Your task to perform on an android device: turn off picture-in-picture Image 0: 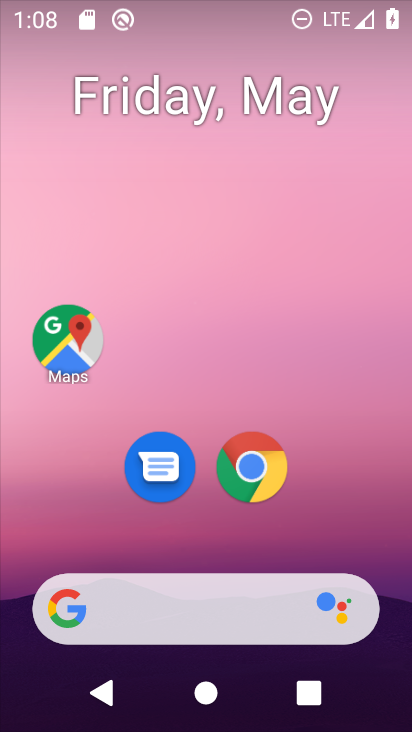
Step 0: drag from (199, 589) to (190, 16)
Your task to perform on an android device: turn off picture-in-picture Image 1: 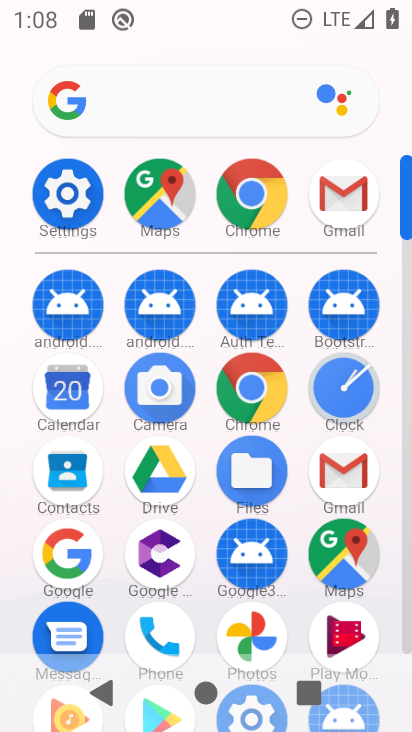
Step 1: drag from (294, 584) to (282, 264)
Your task to perform on an android device: turn off picture-in-picture Image 2: 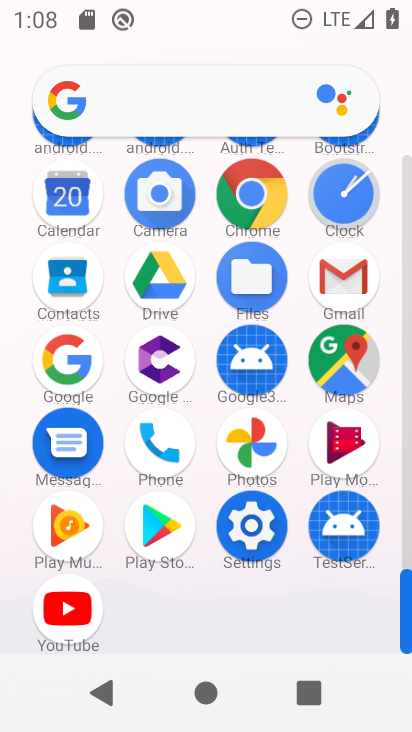
Step 2: click (265, 536)
Your task to perform on an android device: turn off picture-in-picture Image 3: 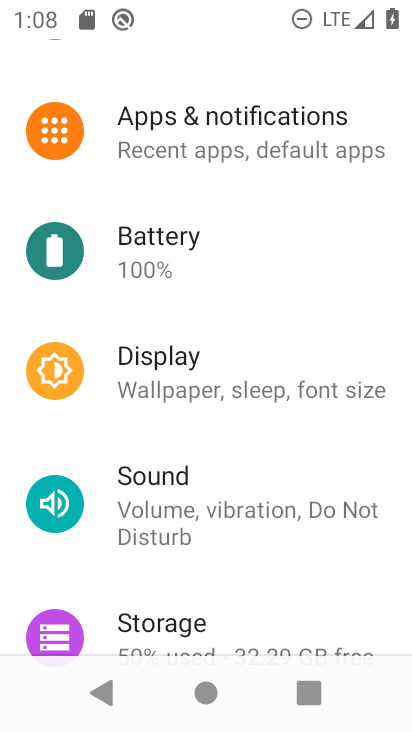
Step 3: click (257, 144)
Your task to perform on an android device: turn off picture-in-picture Image 4: 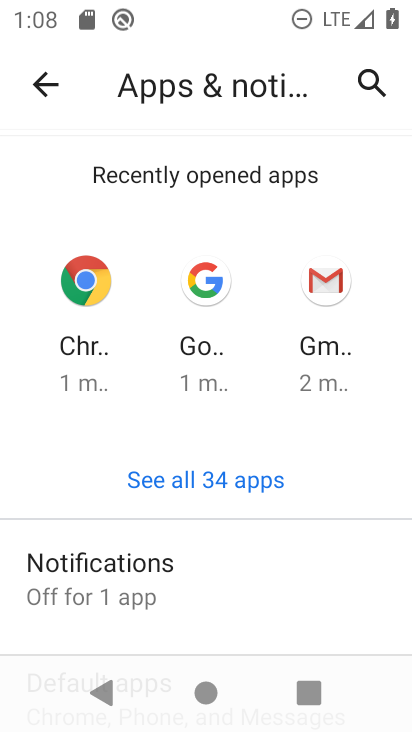
Step 4: drag from (300, 614) to (283, 119)
Your task to perform on an android device: turn off picture-in-picture Image 5: 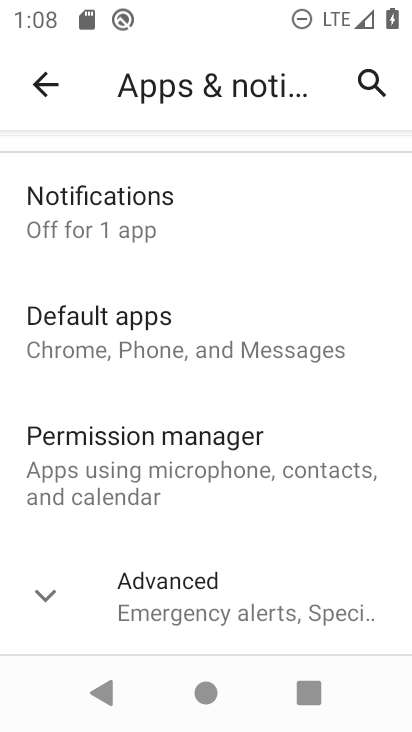
Step 5: click (223, 604)
Your task to perform on an android device: turn off picture-in-picture Image 6: 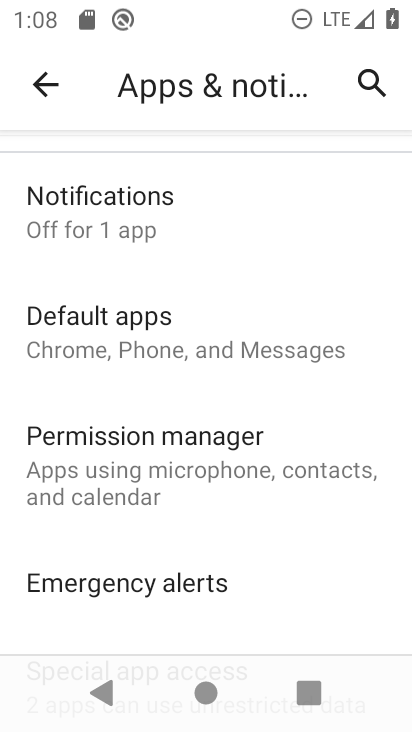
Step 6: drag from (223, 604) to (251, 143)
Your task to perform on an android device: turn off picture-in-picture Image 7: 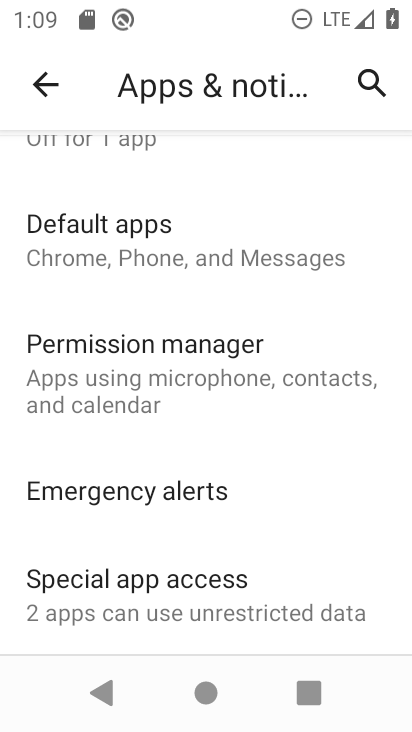
Step 7: click (220, 610)
Your task to perform on an android device: turn off picture-in-picture Image 8: 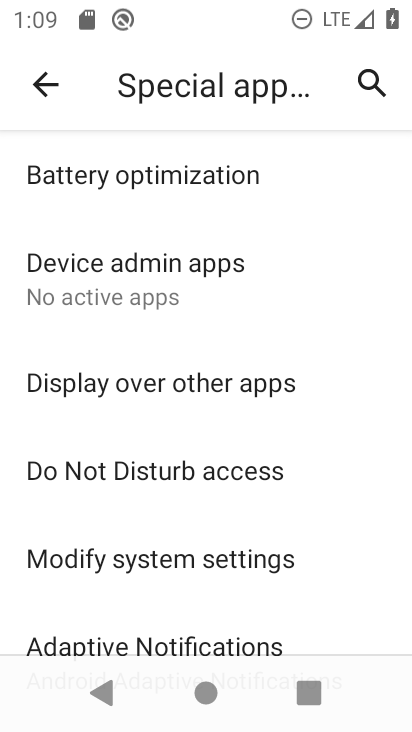
Step 8: drag from (405, 646) to (377, 184)
Your task to perform on an android device: turn off picture-in-picture Image 9: 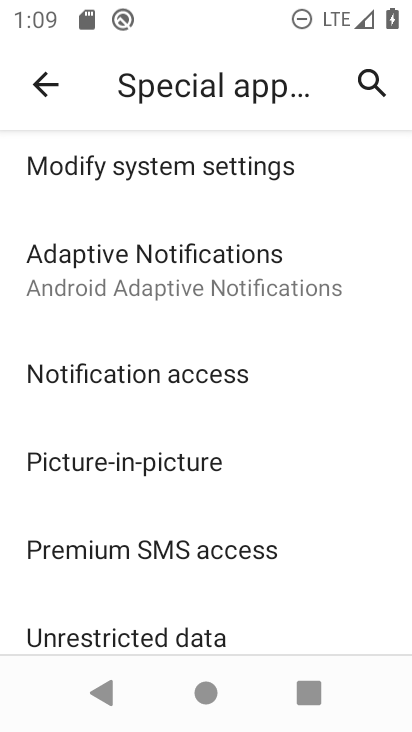
Step 9: drag from (254, 641) to (301, 178)
Your task to perform on an android device: turn off picture-in-picture Image 10: 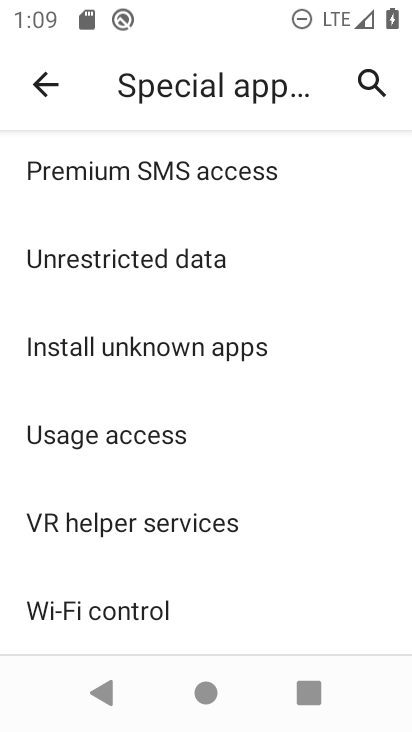
Step 10: drag from (266, 219) to (204, 671)
Your task to perform on an android device: turn off picture-in-picture Image 11: 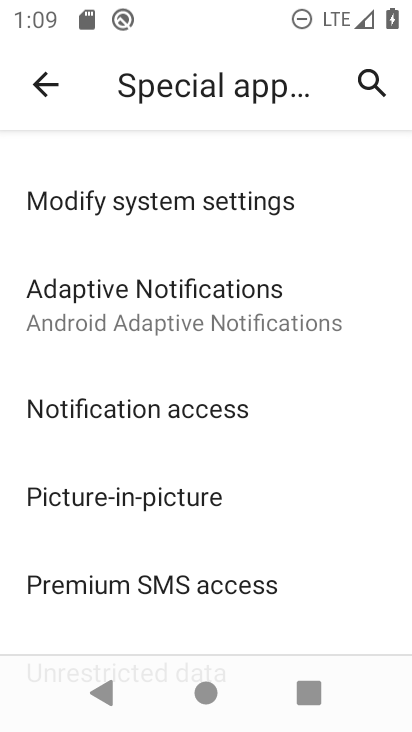
Step 11: click (186, 504)
Your task to perform on an android device: turn off picture-in-picture Image 12: 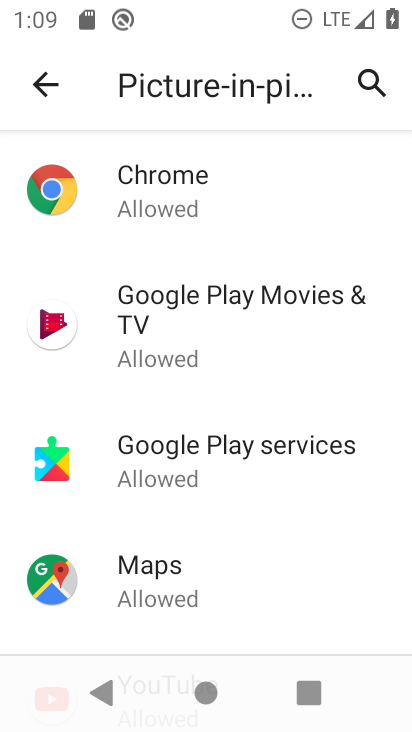
Step 12: click (187, 180)
Your task to perform on an android device: turn off picture-in-picture Image 13: 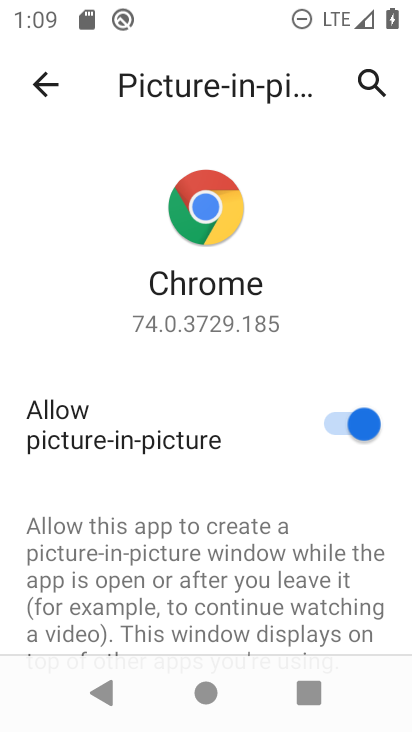
Step 13: click (330, 427)
Your task to perform on an android device: turn off picture-in-picture Image 14: 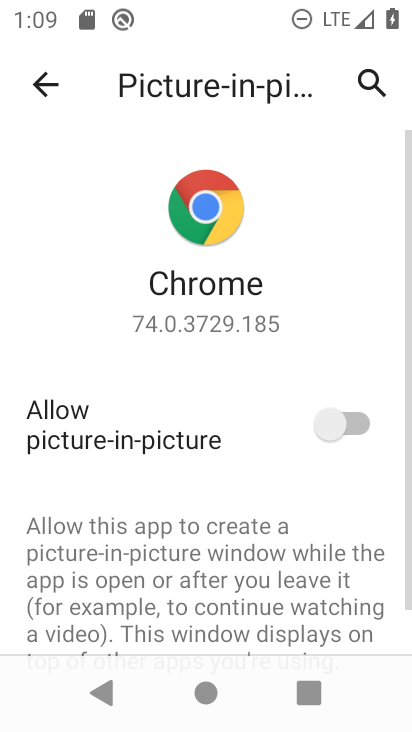
Step 14: press back button
Your task to perform on an android device: turn off picture-in-picture Image 15: 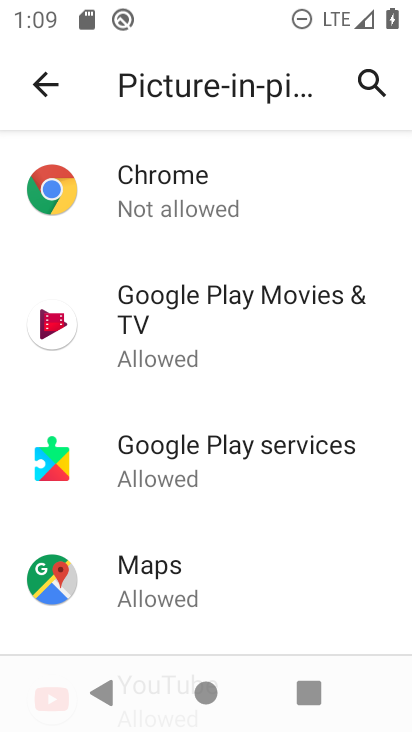
Step 15: click (234, 321)
Your task to perform on an android device: turn off picture-in-picture Image 16: 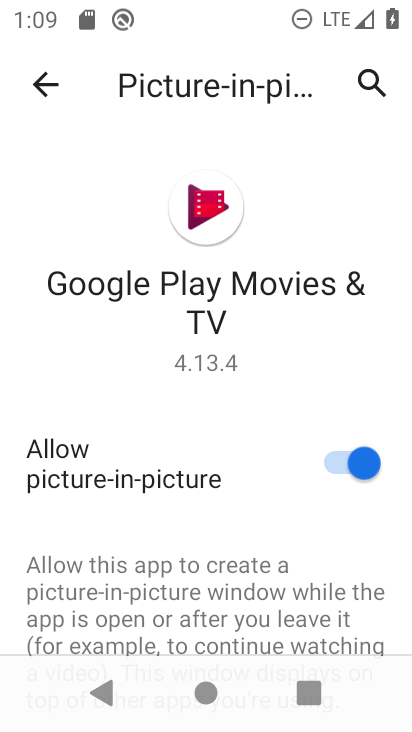
Step 16: click (339, 459)
Your task to perform on an android device: turn off picture-in-picture Image 17: 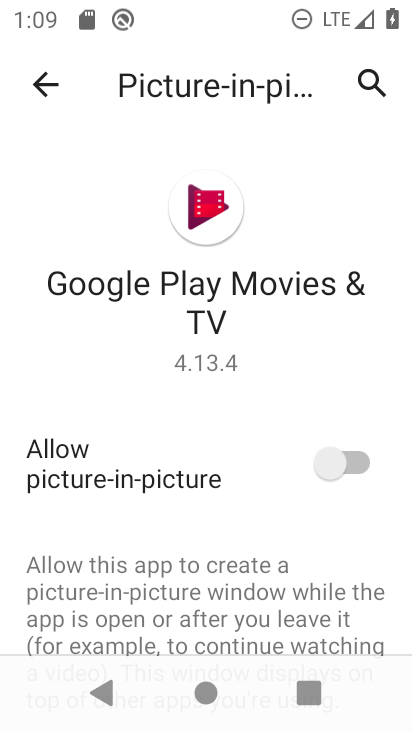
Step 17: press back button
Your task to perform on an android device: turn off picture-in-picture Image 18: 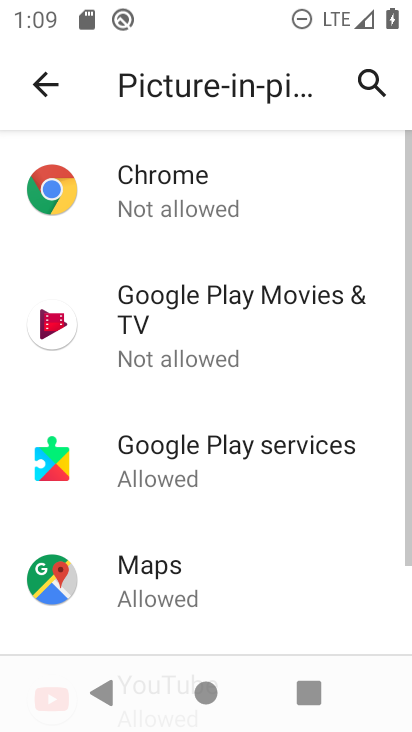
Step 18: click (245, 460)
Your task to perform on an android device: turn off picture-in-picture Image 19: 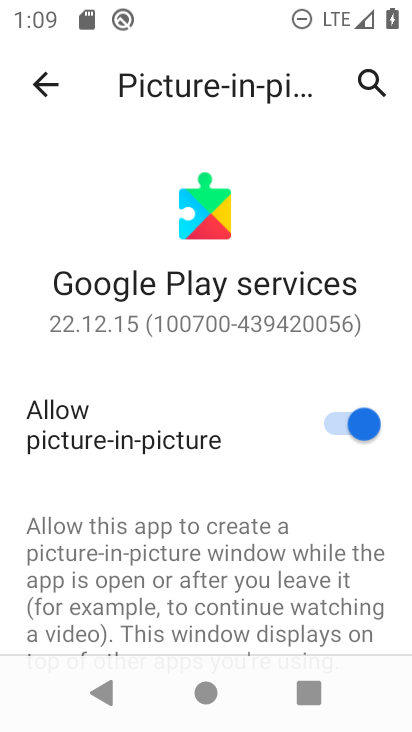
Step 19: click (342, 417)
Your task to perform on an android device: turn off picture-in-picture Image 20: 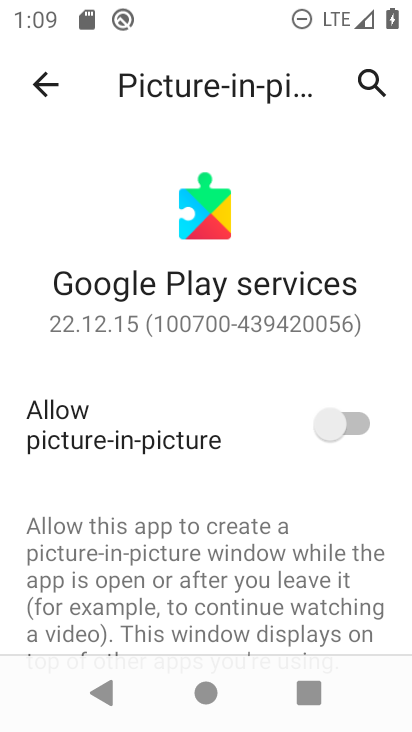
Step 20: press back button
Your task to perform on an android device: turn off picture-in-picture Image 21: 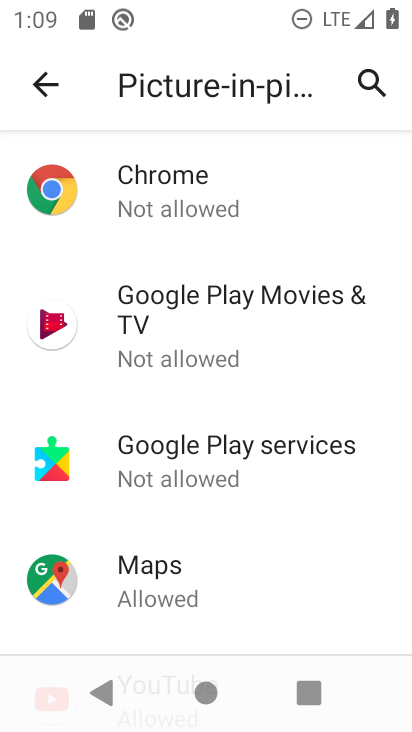
Step 21: click (250, 584)
Your task to perform on an android device: turn off picture-in-picture Image 22: 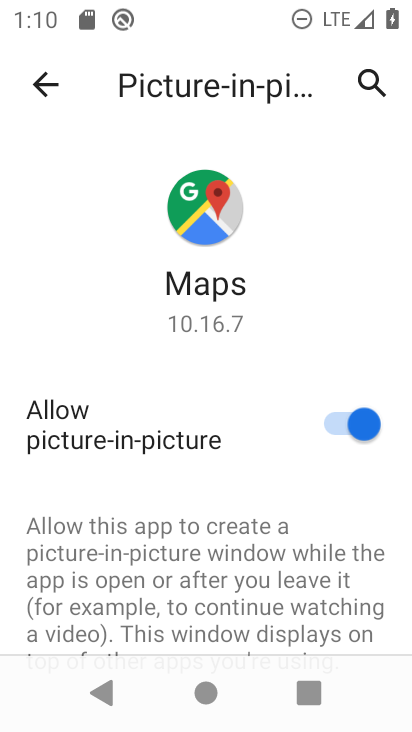
Step 22: click (333, 418)
Your task to perform on an android device: turn off picture-in-picture Image 23: 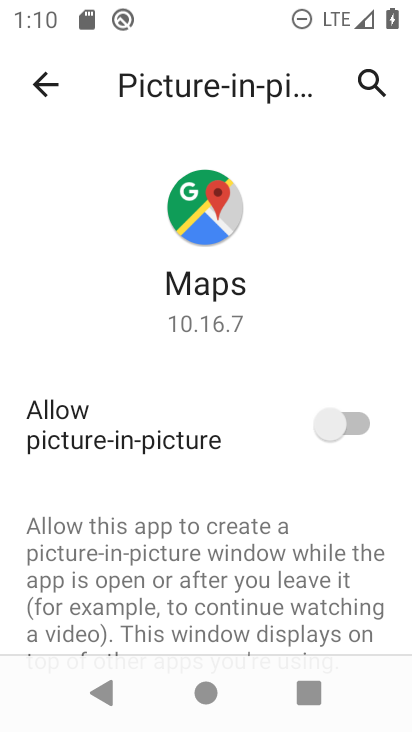
Step 23: press back button
Your task to perform on an android device: turn off picture-in-picture Image 24: 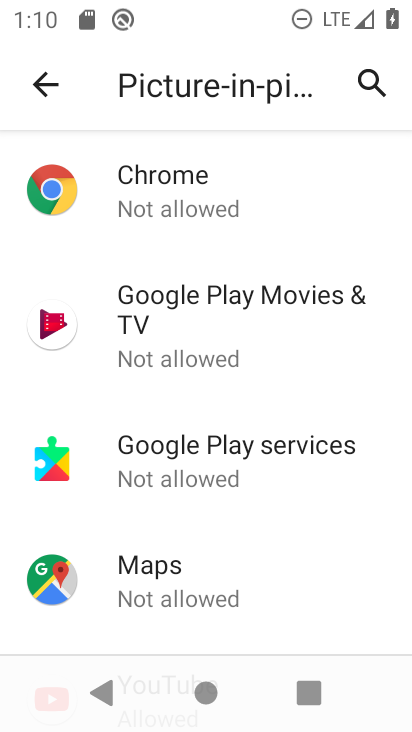
Step 24: drag from (257, 632) to (300, 234)
Your task to perform on an android device: turn off picture-in-picture Image 25: 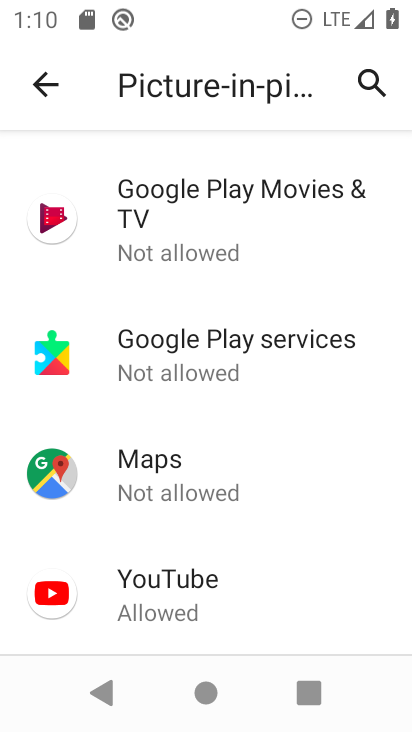
Step 25: click (278, 610)
Your task to perform on an android device: turn off picture-in-picture Image 26: 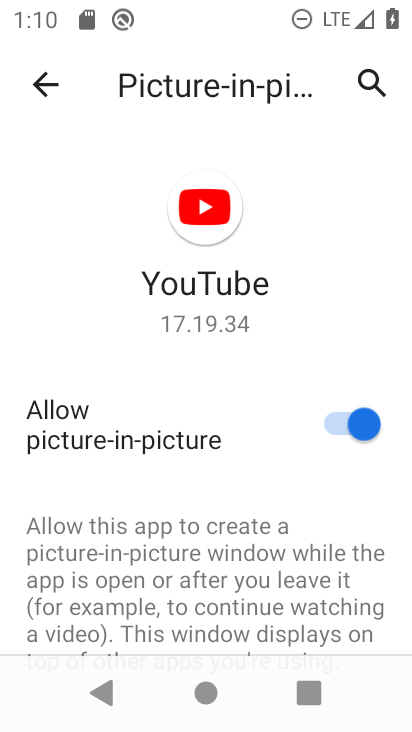
Step 26: click (334, 424)
Your task to perform on an android device: turn off picture-in-picture Image 27: 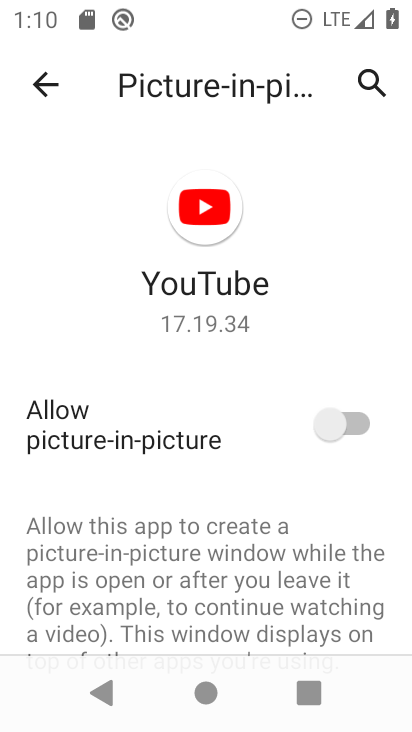
Step 27: task complete